Your task to perform on an android device: Go to calendar. Show me events next week Image 0: 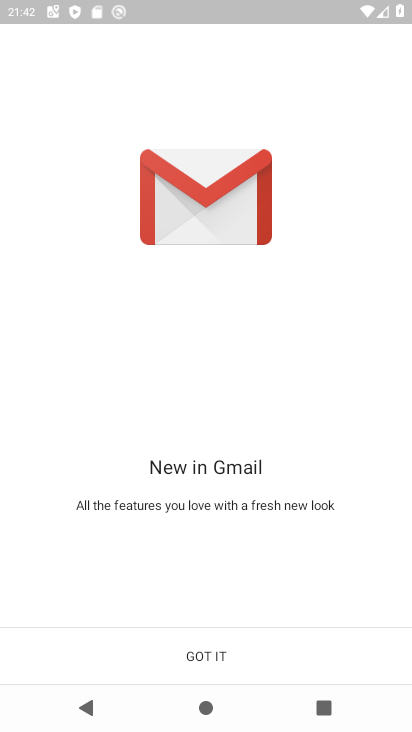
Step 0: press home button
Your task to perform on an android device: Go to calendar. Show me events next week Image 1: 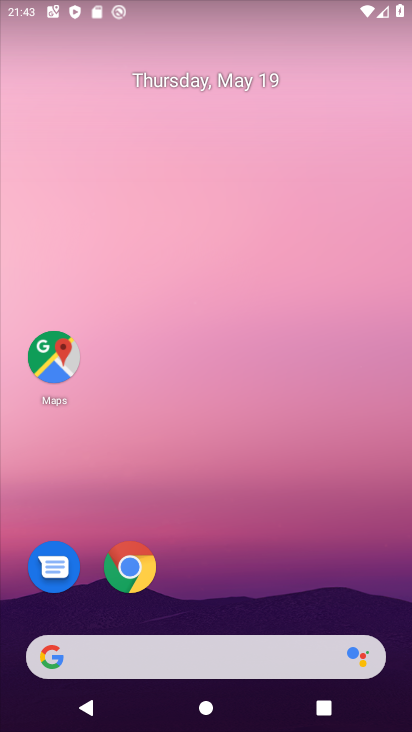
Step 1: drag from (215, 607) to (303, 107)
Your task to perform on an android device: Go to calendar. Show me events next week Image 2: 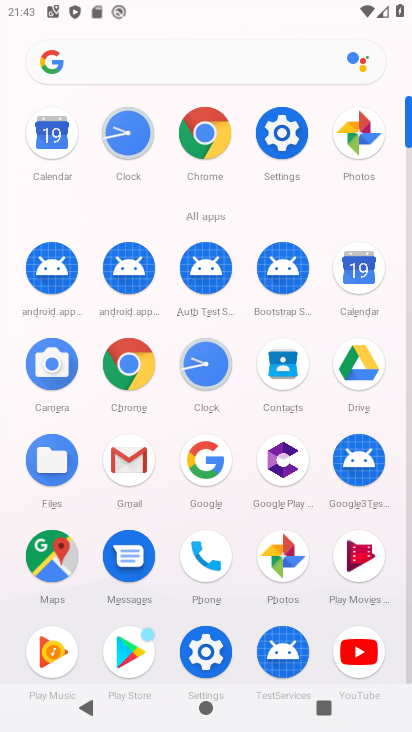
Step 2: click (366, 272)
Your task to perform on an android device: Go to calendar. Show me events next week Image 3: 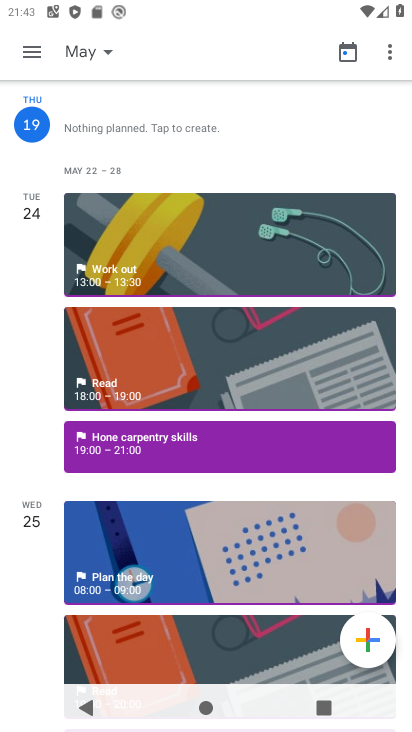
Step 3: click (33, 201)
Your task to perform on an android device: Go to calendar. Show me events next week Image 4: 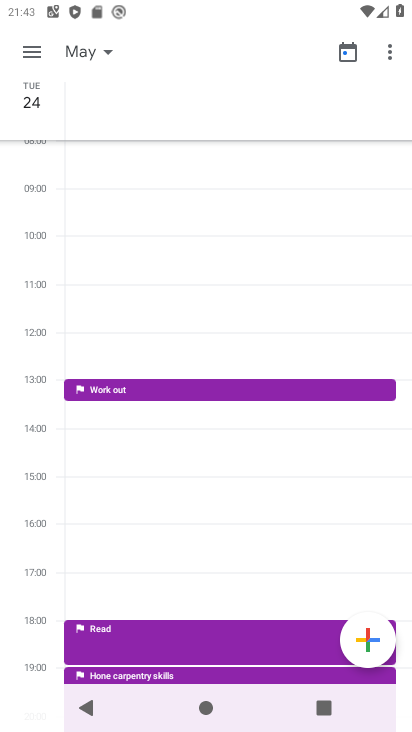
Step 4: click (52, 98)
Your task to perform on an android device: Go to calendar. Show me events next week Image 5: 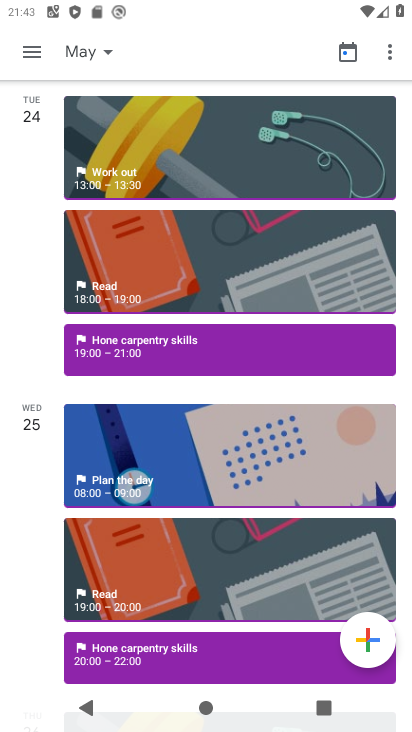
Step 5: task complete